Your task to perform on an android device: delete a single message in the gmail app Image 0: 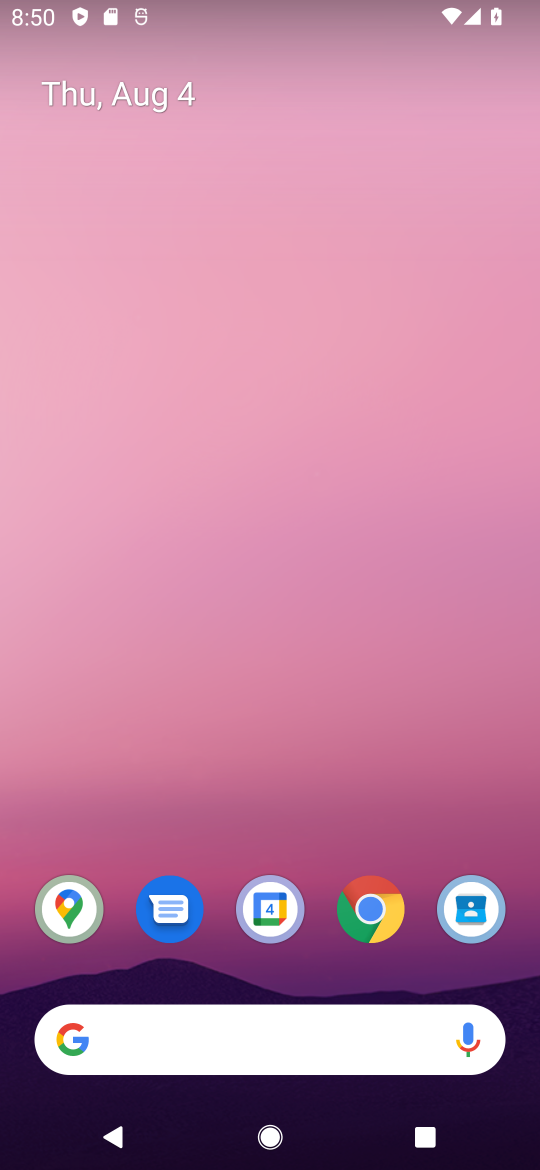
Step 0: press home button
Your task to perform on an android device: delete a single message in the gmail app Image 1: 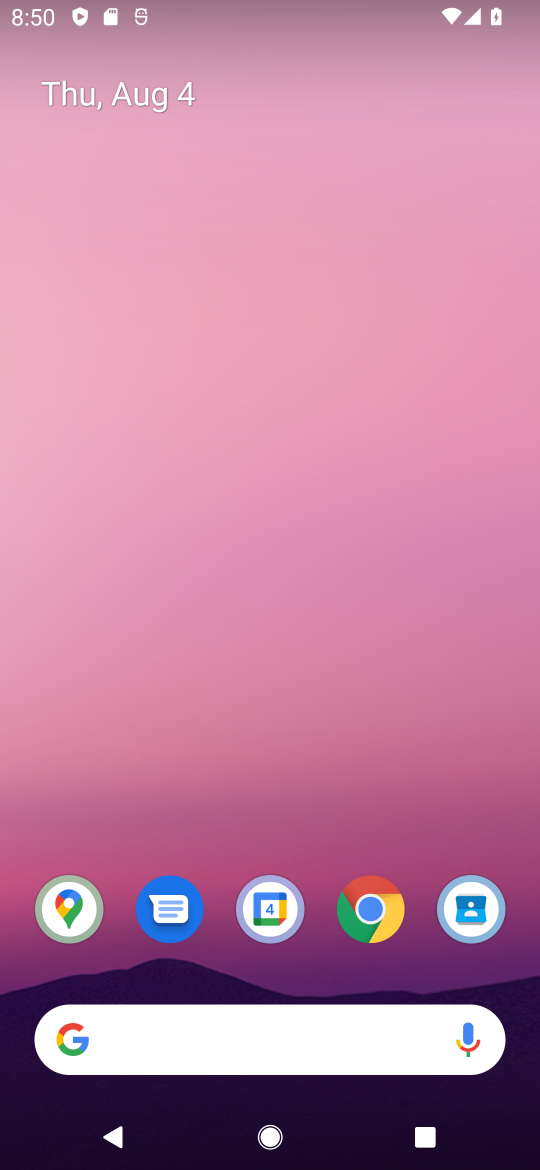
Step 1: drag from (330, 834) to (382, 290)
Your task to perform on an android device: delete a single message in the gmail app Image 2: 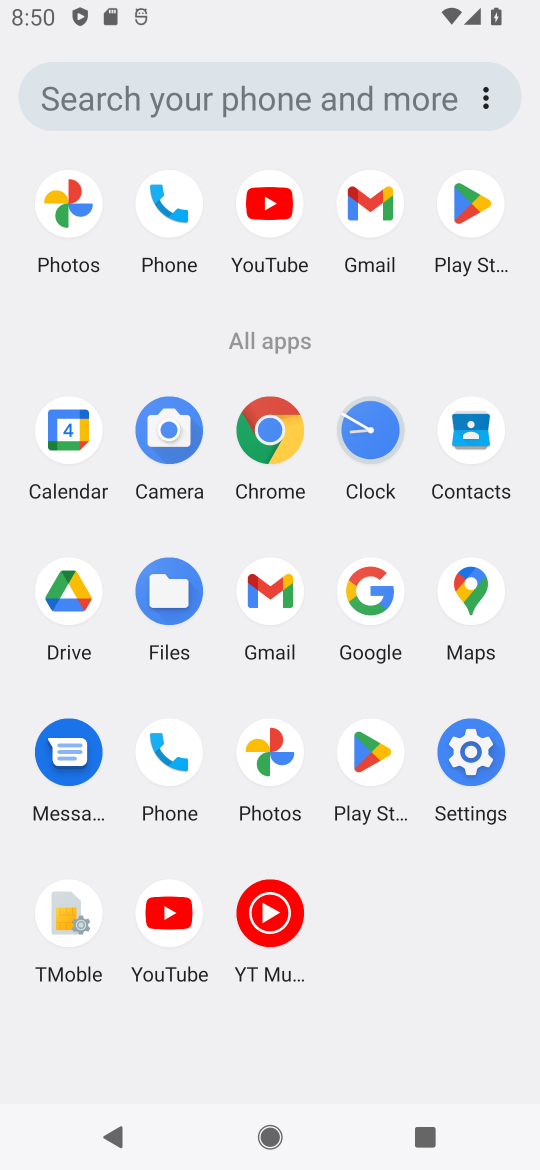
Step 2: click (272, 596)
Your task to perform on an android device: delete a single message in the gmail app Image 3: 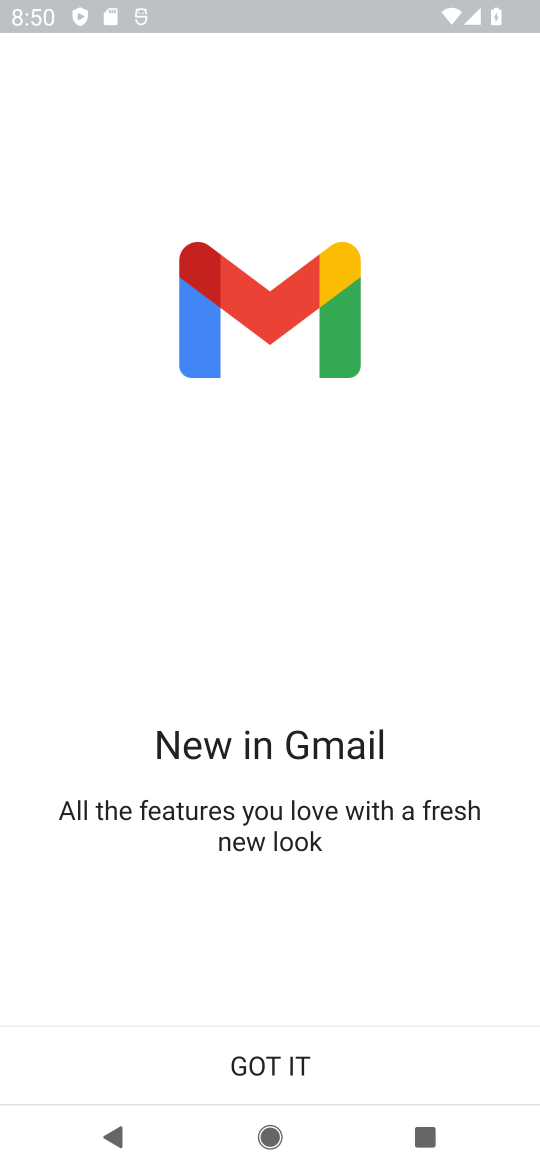
Step 3: click (267, 1074)
Your task to perform on an android device: delete a single message in the gmail app Image 4: 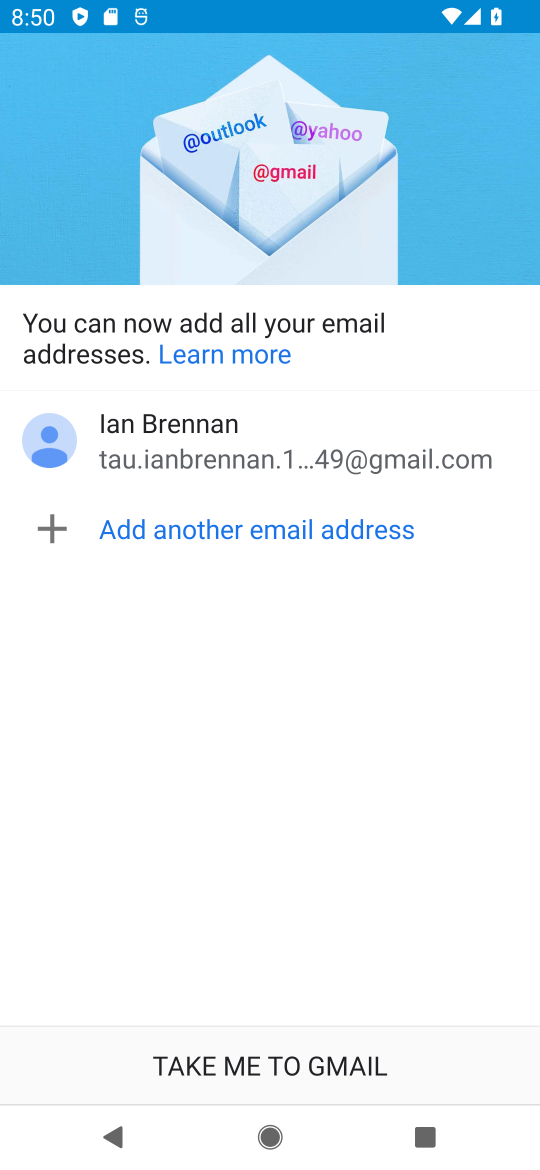
Step 4: click (268, 1066)
Your task to perform on an android device: delete a single message in the gmail app Image 5: 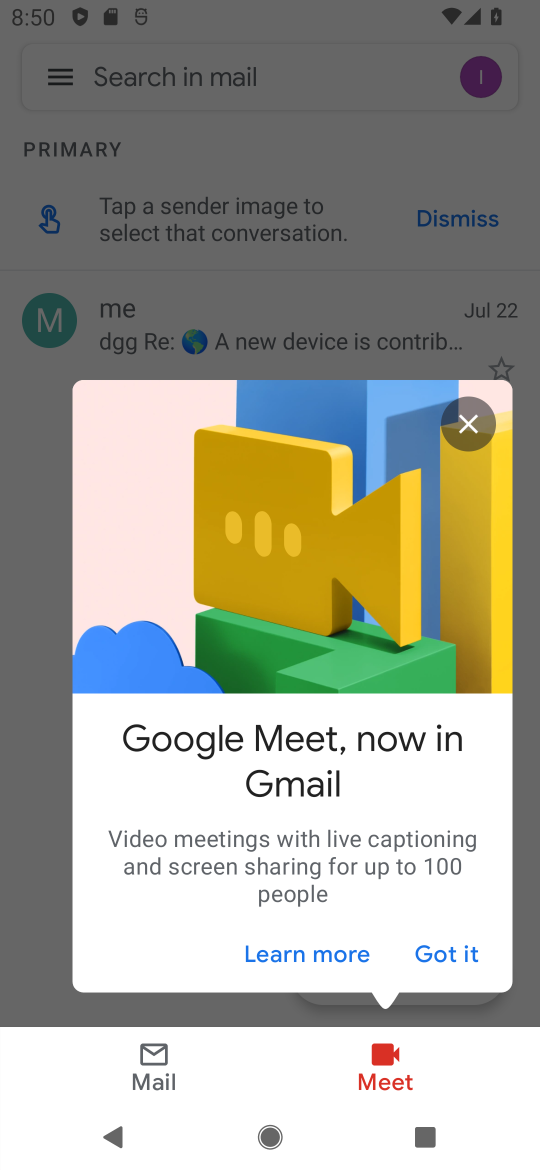
Step 5: click (471, 420)
Your task to perform on an android device: delete a single message in the gmail app Image 6: 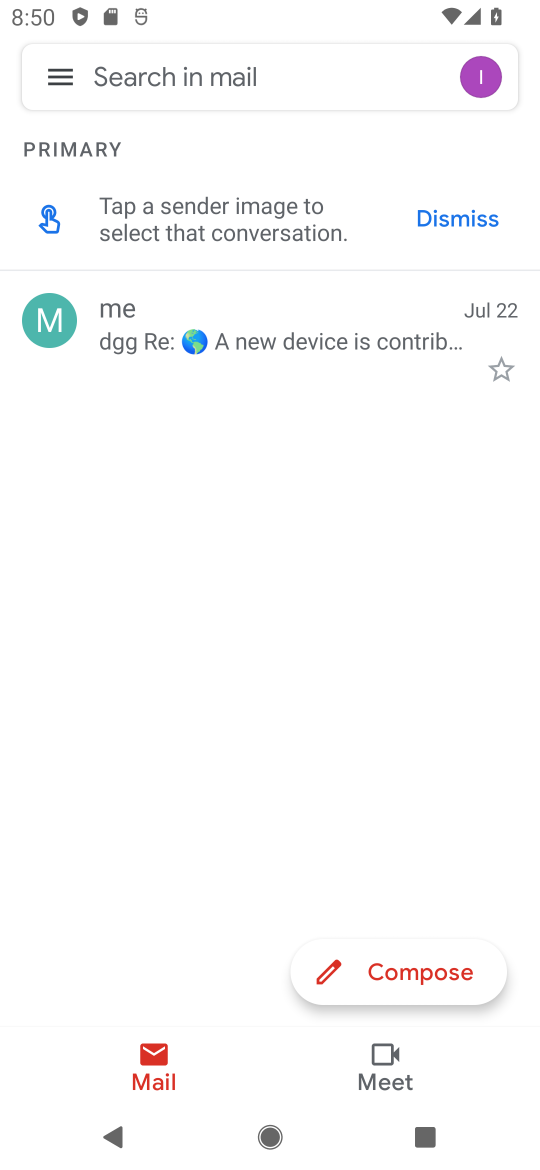
Step 6: click (322, 335)
Your task to perform on an android device: delete a single message in the gmail app Image 7: 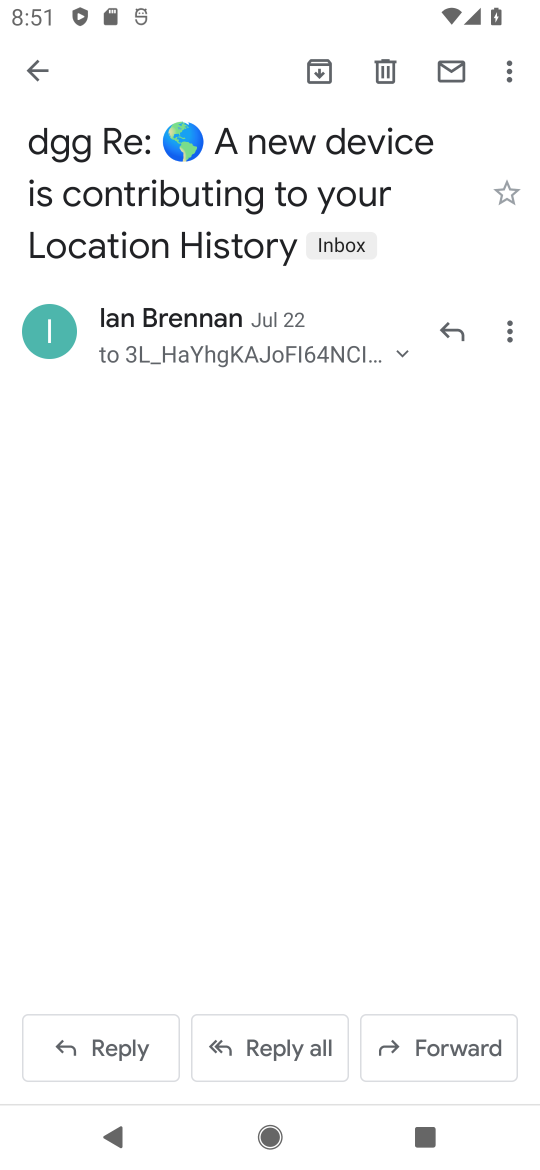
Step 7: click (385, 72)
Your task to perform on an android device: delete a single message in the gmail app Image 8: 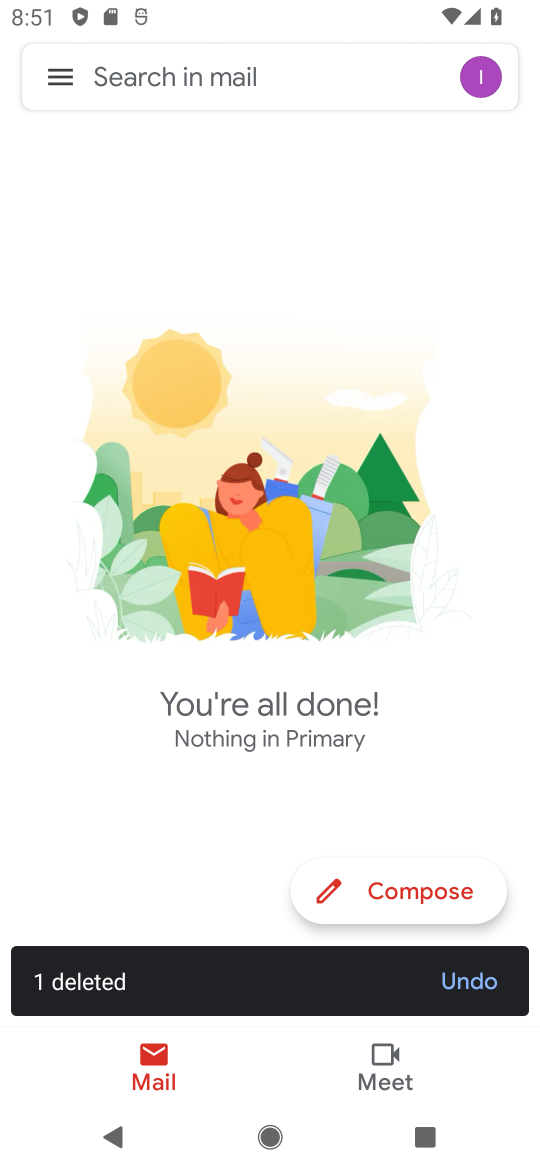
Step 8: task complete